Your task to perform on an android device: change notifications settings Image 0: 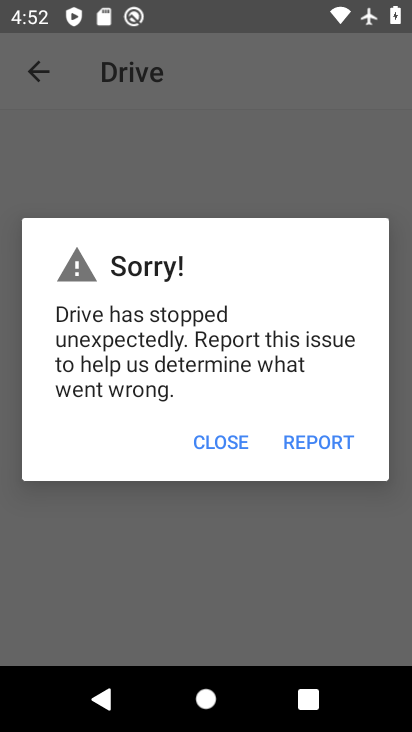
Step 0: press home button
Your task to perform on an android device: change notifications settings Image 1: 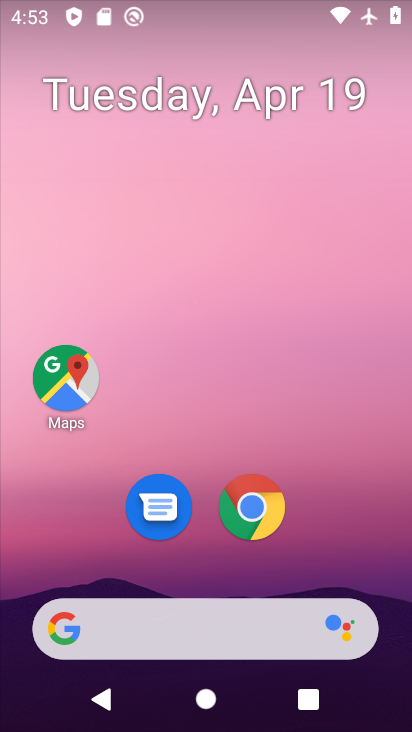
Step 1: drag from (367, 510) to (368, 83)
Your task to perform on an android device: change notifications settings Image 2: 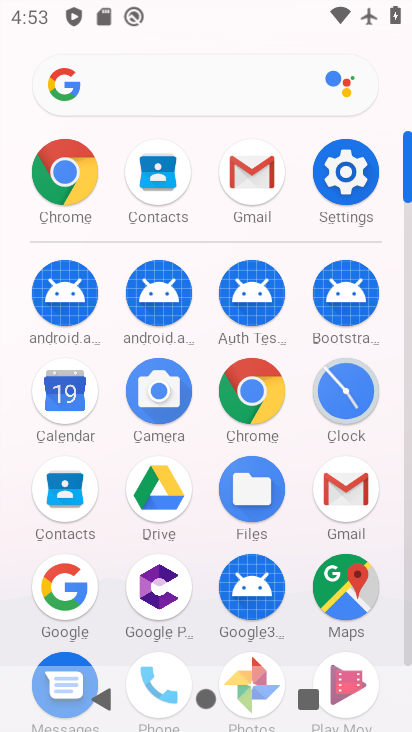
Step 2: drag from (291, 453) to (356, 80)
Your task to perform on an android device: change notifications settings Image 3: 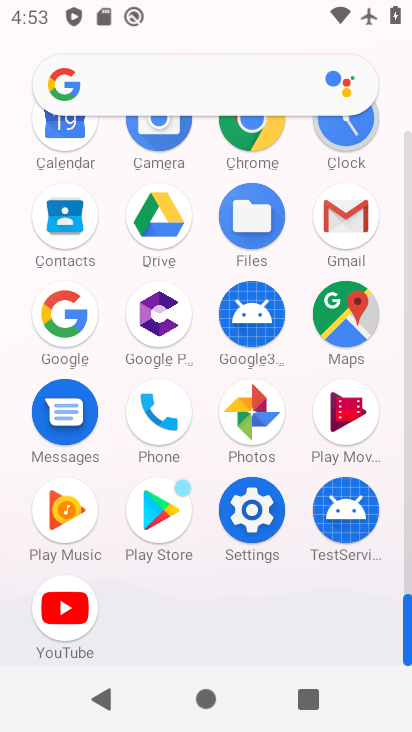
Step 3: click (240, 499)
Your task to perform on an android device: change notifications settings Image 4: 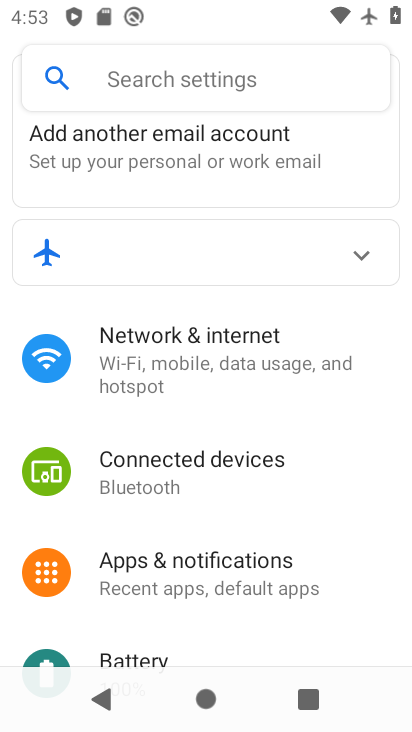
Step 4: click (259, 587)
Your task to perform on an android device: change notifications settings Image 5: 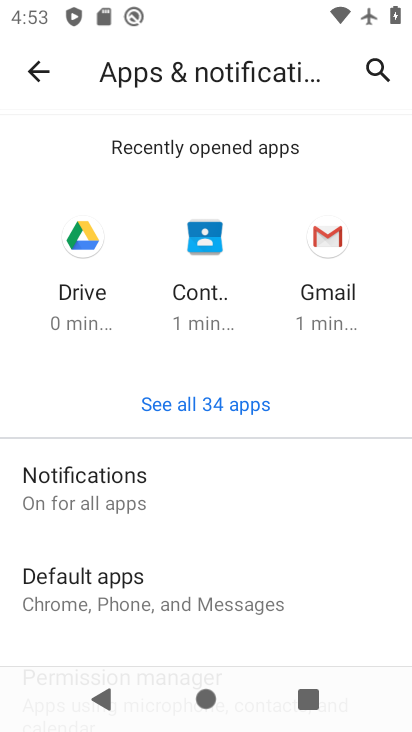
Step 5: click (62, 501)
Your task to perform on an android device: change notifications settings Image 6: 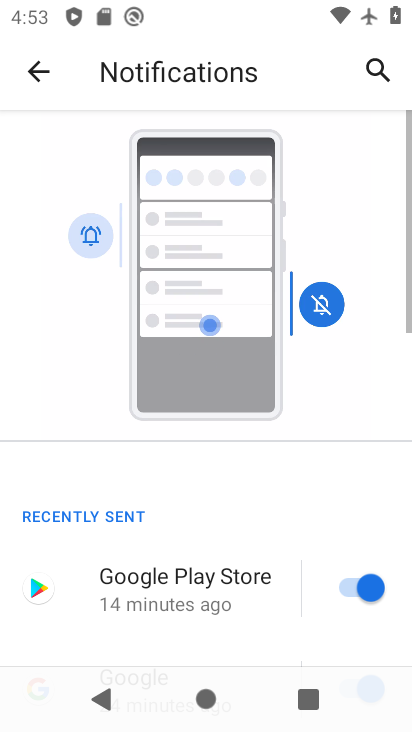
Step 6: drag from (203, 495) to (367, 54)
Your task to perform on an android device: change notifications settings Image 7: 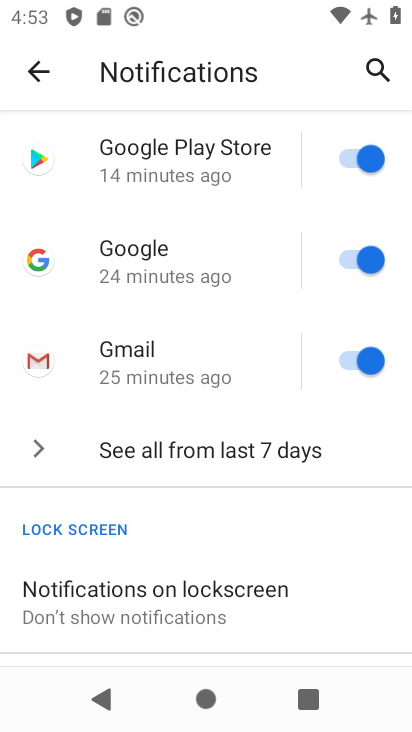
Step 7: drag from (278, 560) to (291, 237)
Your task to perform on an android device: change notifications settings Image 8: 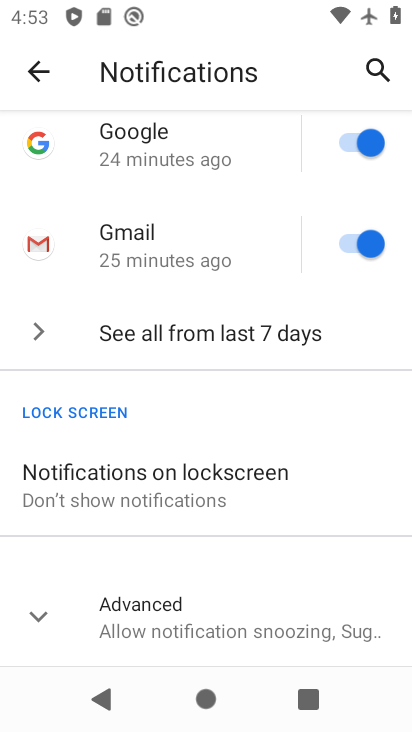
Step 8: click (210, 605)
Your task to perform on an android device: change notifications settings Image 9: 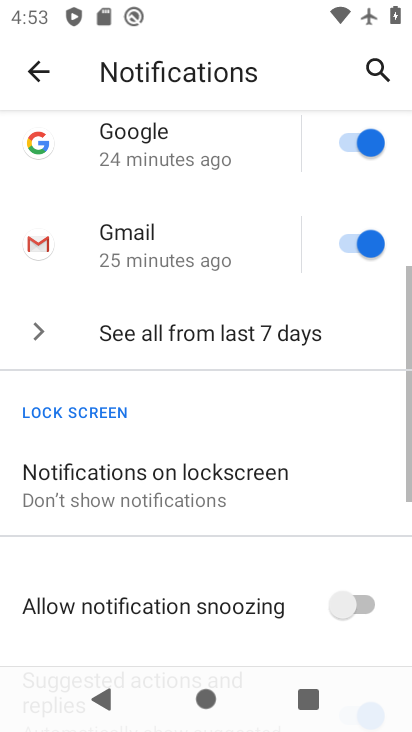
Step 9: drag from (250, 565) to (330, 225)
Your task to perform on an android device: change notifications settings Image 10: 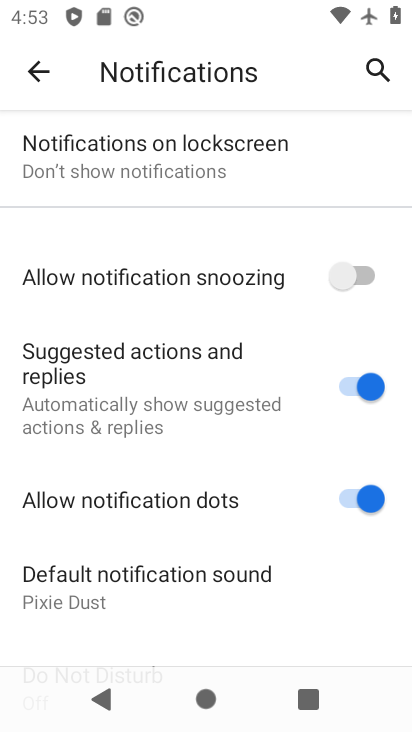
Step 10: click (344, 279)
Your task to perform on an android device: change notifications settings Image 11: 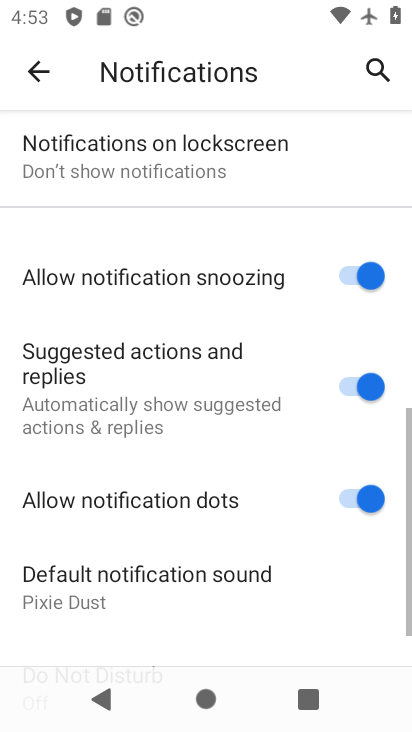
Step 11: task complete